Your task to perform on an android device: set default search engine in the chrome app Image 0: 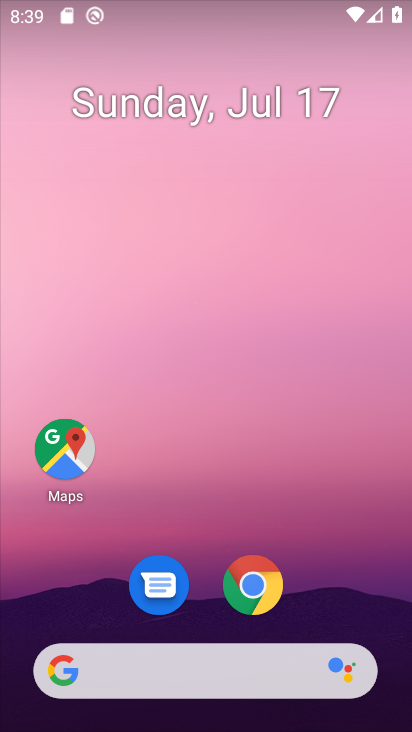
Step 0: click (262, 585)
Your task to perform on an android device: set default search engine in the chrome app Image 1: 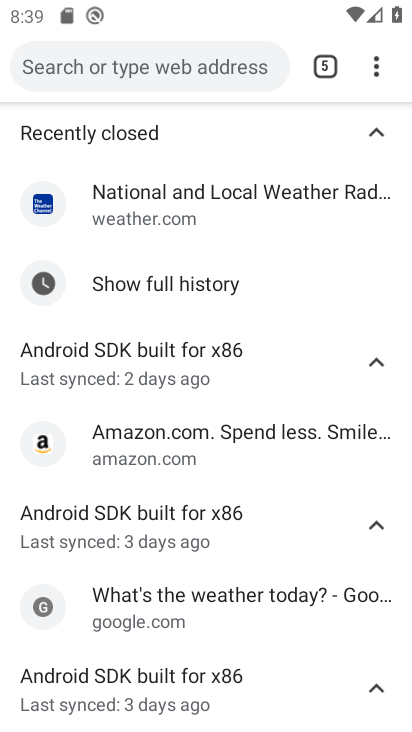
Step 1: click (378, 66)
Your task to perform on an android device: set default search engine in the chrome app Image 2: 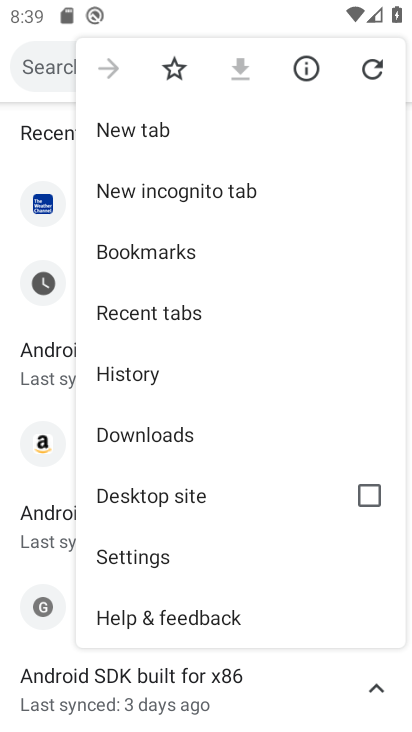
Step 2: click (161, 549)
Your task to perform on an android device: set default search engine in the chrome app Image 3: 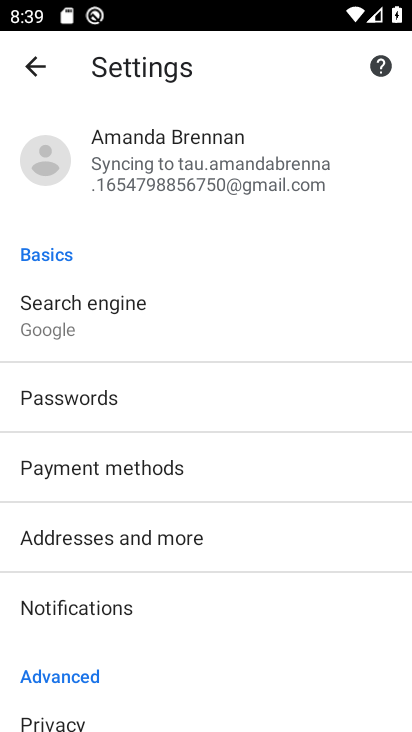
Step 3: click (134, 317)
Your task to perform on an android device: set default search engine in the chrome app Image 4: 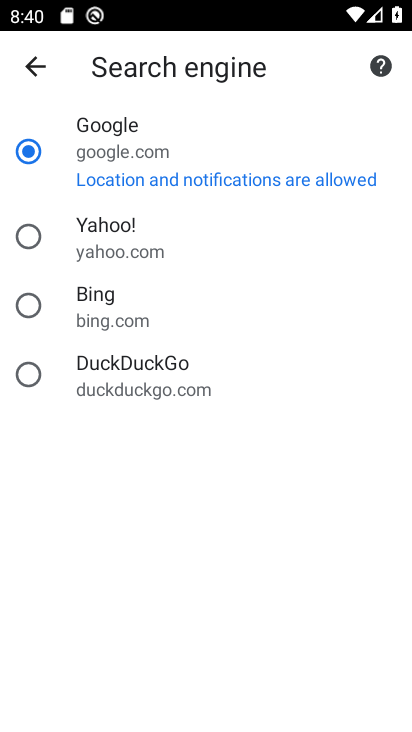
Step 4: task complete